Your task to perform on an android device: Show me productivity apps on the Play Store Image 0: 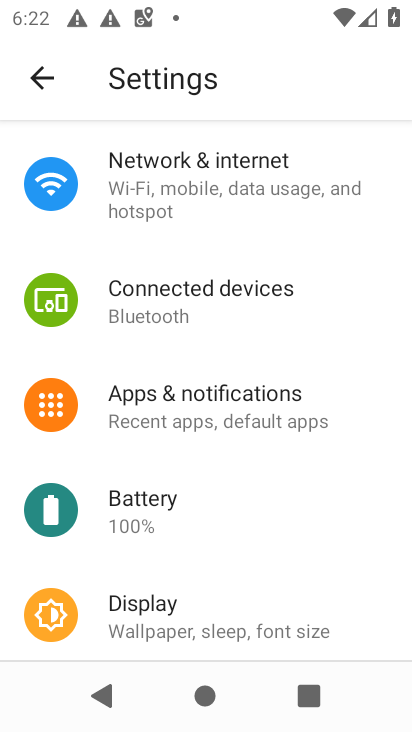
Step 0: press back button
Your task to perform on an android device: Show me productivity apps on the Play Store Image 1: 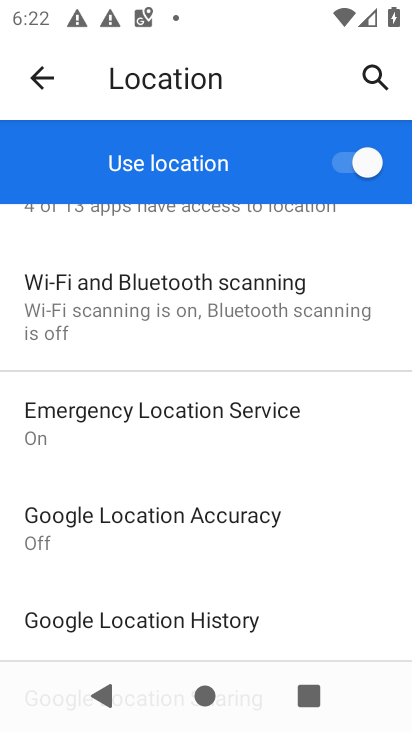
Step 1: press back button
Your task to perform on an android device: Show me productivity apps on the Play Store Image 2: 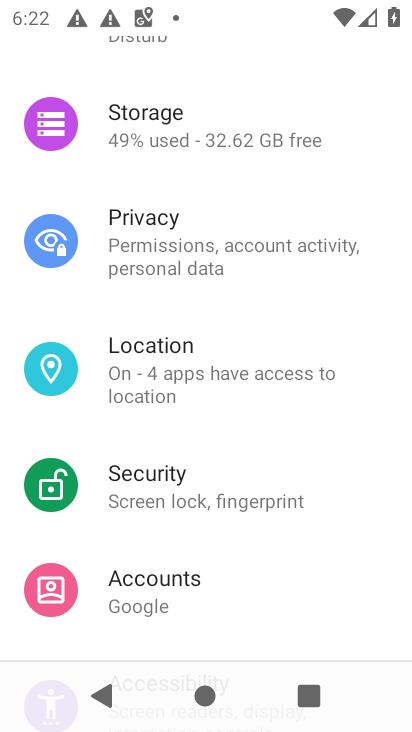
Step 2: press back button
Your task to perform on an android device: Show me productivity apps on the Play Store Image 3: 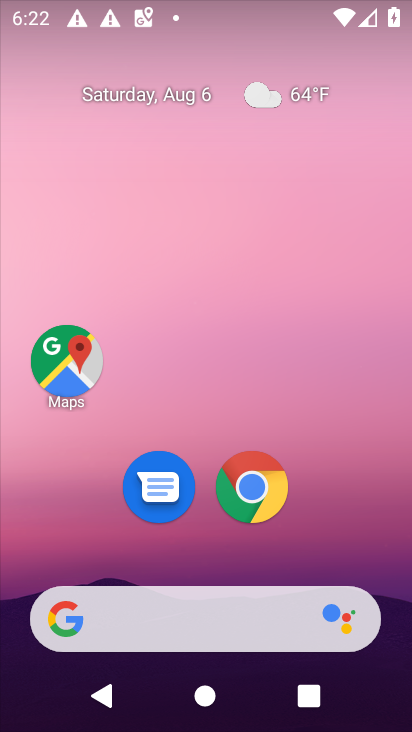
Step 3: drag from (179, 538) to (293, 35)
Your task to perform on an android device: Show me productivity apps on the Play Store Image 4: 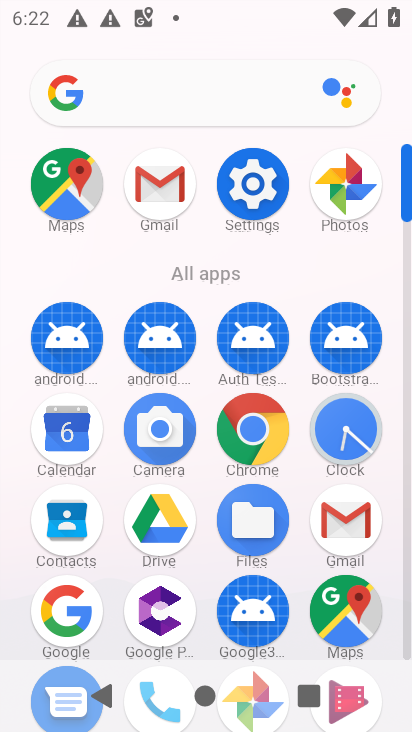
Step 4: drag from (201, 563) to (287, 109)
Your task to perform on an android device: Show me productivity apps on the Play Store Image 5: 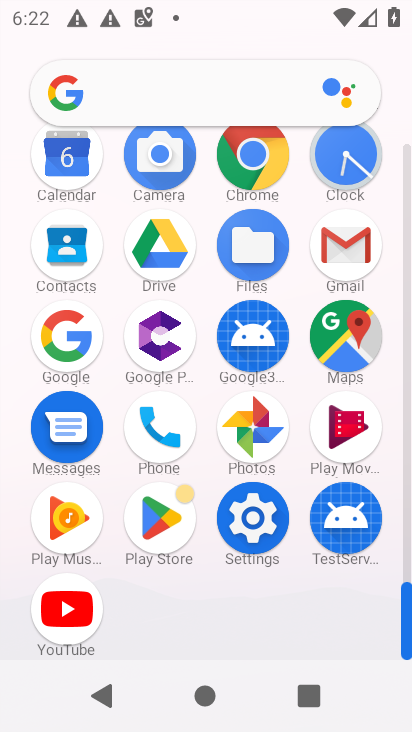
Step 5: click (158, 519)
Your task to perform on an android device: Show me productivity apps on the Play Store Image 6: 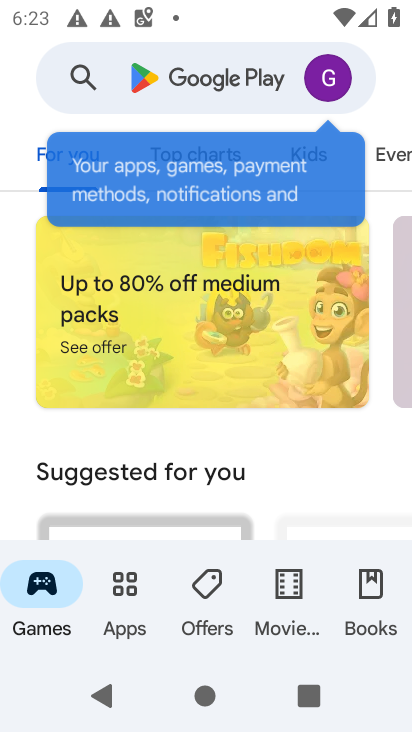
Step 6: click (111, 591)
Your task to perform on an android device: Show me productivity apps on the Play Store Image 7: 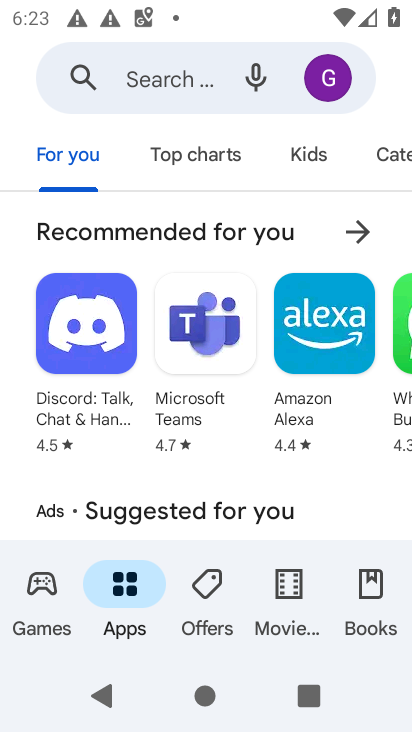
Step 7: drag from (148, 499) to (267, 64)
Your task to perform on an android device: Show me productivity apps on the Play Store Image 8: 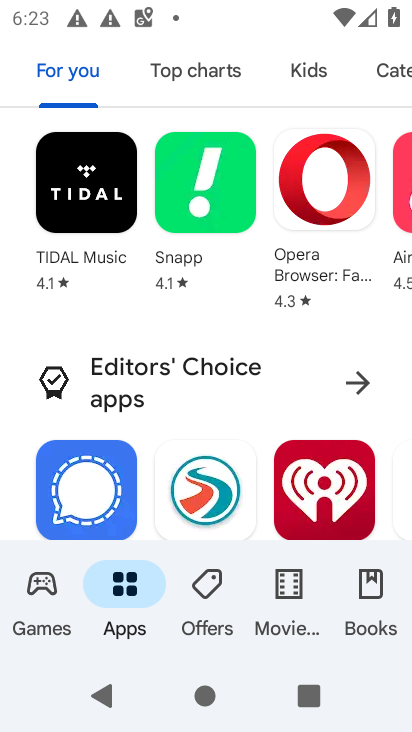
Step 8: drag from (222, 447) to (318, 6)
Your task to perform on an android device: Show me productivity apps on the Play Store Image 9: 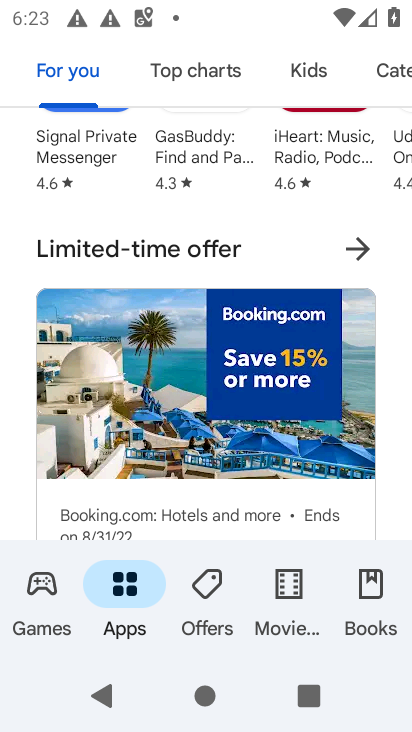
Step 9: drag from (191, 500) to (328, 13)
Your task to perform on an android device: Show me productivity apps on the Play Store Image 10: 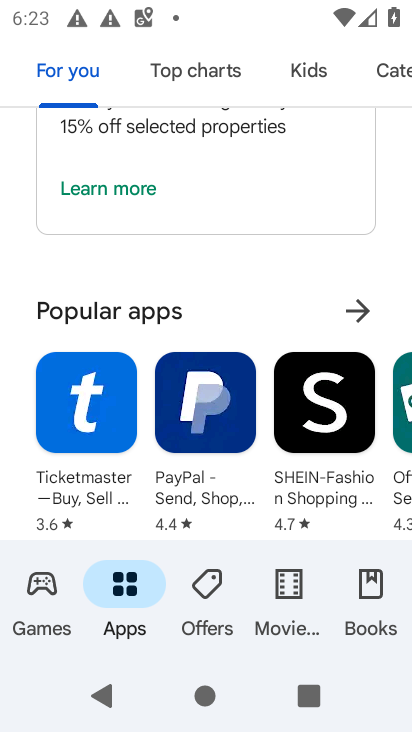
Step 10: drag from (256, 510) to (331, 48)
Your task to perform on an android device: Show me productivity apps on the Play Store Image 11: 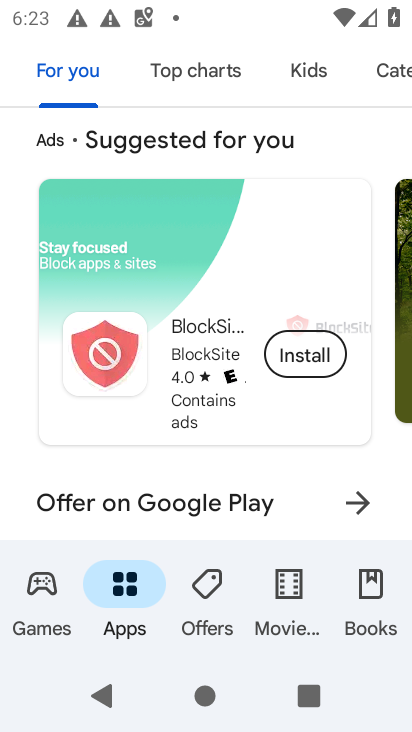
Step 11: drag from (206, 537) to (323, 71)
Your task to perform on an android device: Show me productivity apps on the Play Store Image 12: 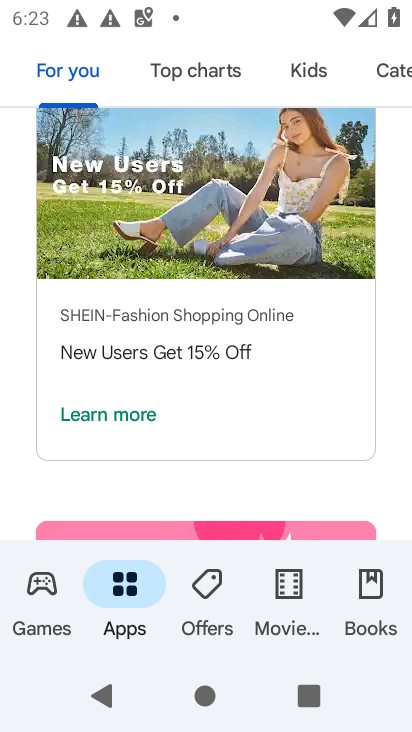
Step 12: drag from (239, 494) to (349, 51)
Your task to perform on an android device: Show me productivity apps on the Play Store Image 13: 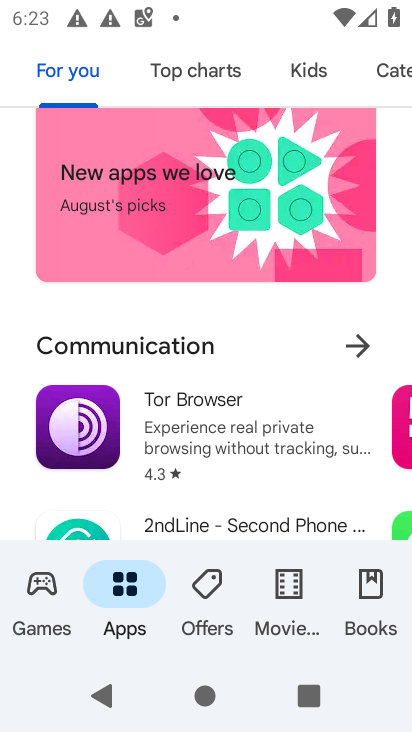
Step 13: drag from (198, 502) to (306, 87)
Your task to perform on an android device: Show me productivity apps on the Play Store Image 14: 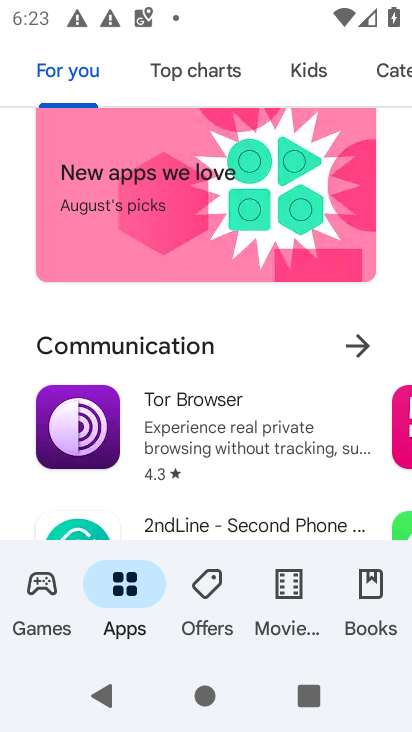
Step 14: drag from (15, 474) to (36, 46)
Your task to perform on an android device: Show me productivity apps on the Play Store Image 15: 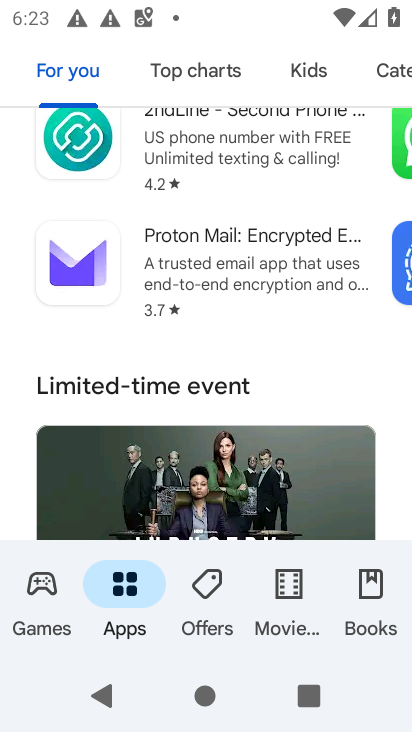
Step 15: drag from (29, 512) to (39, 19)
Your task to perform on an android device: Show me productivity apps on the Play Store Image 16: 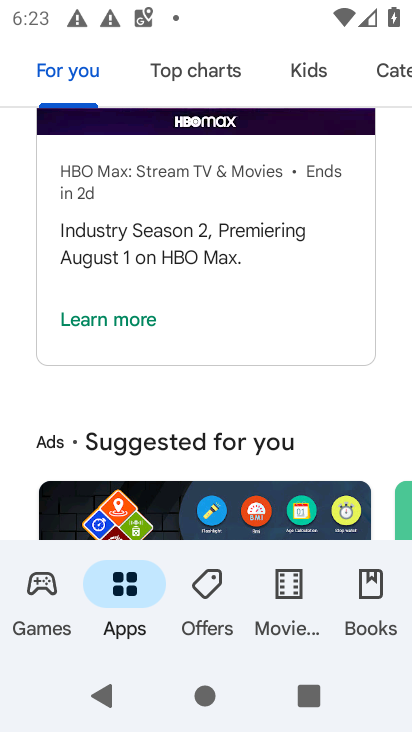
Step 16: drag from (5, 509) to (3, 31)
Your task to perform on an android device: Show me productivity apps on the Play Store Image 17: 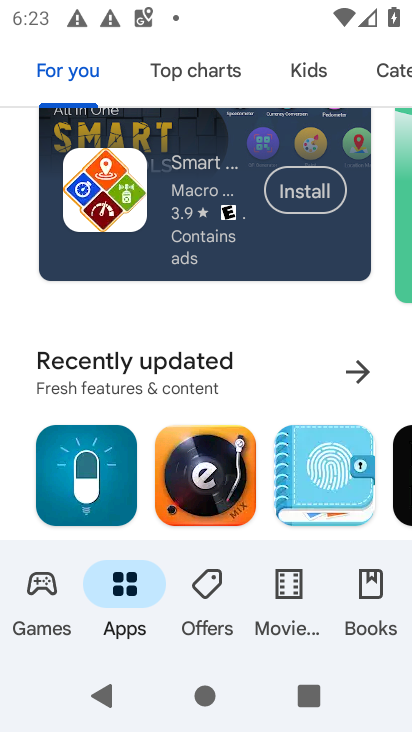
Step 17: drag from (15, 510) to (14, 10)
Your task to perform on an android device: Show me productivity apps on the Play Store Image 18: 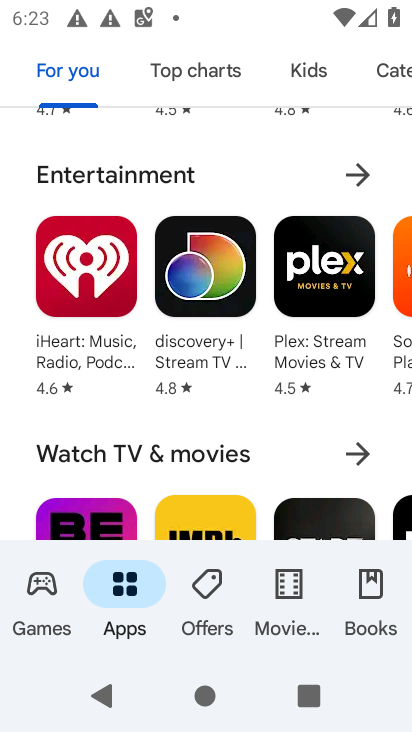
Step 18: drag from (12, 530) to (12, 23)
Your task to perform on an android device: Show me productivity apps on the Play Store Image 19: 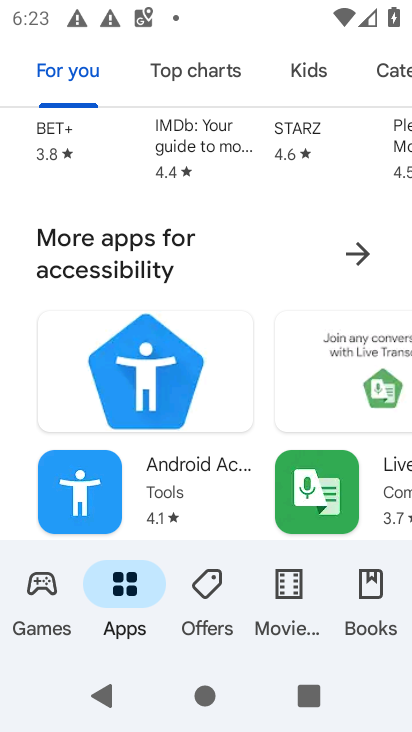
Step 19: drag from (20, 517) to (20, 10)
Your task to perform on an android device: Show me productivity apps on the Play Store Image 20: 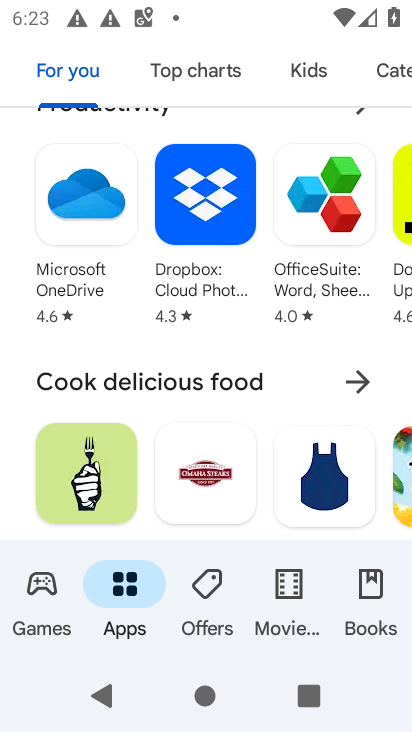
Step 20: drag from (22, 173) to (1, 451)
Your task to perform on an android device: Show me productivity apps on the Play Store Image 21: 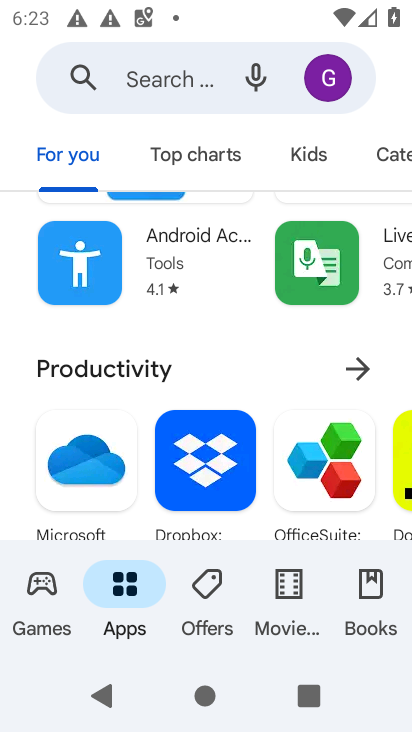
Step 21: click (366, 360)
Your task to perform on an android device: Show me productivity apps on the Play Store Image 22: 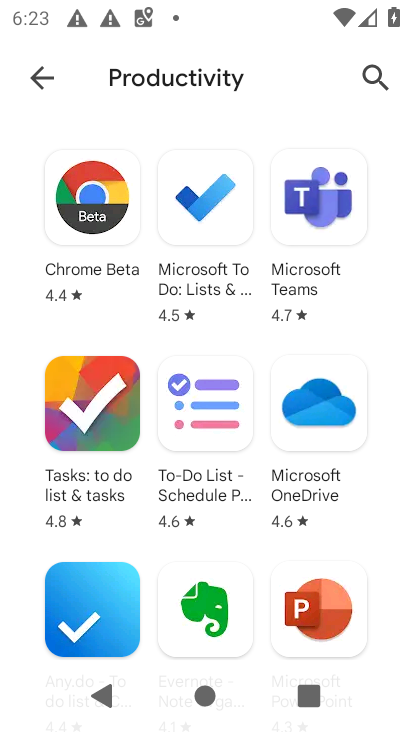
Step 22: task complete